Your task to perform on an android device: Empty the shopping cart on bestbuy. Search for "acer nitro" on bestbuy, select the first entry, and add it to the cart. Image 0: 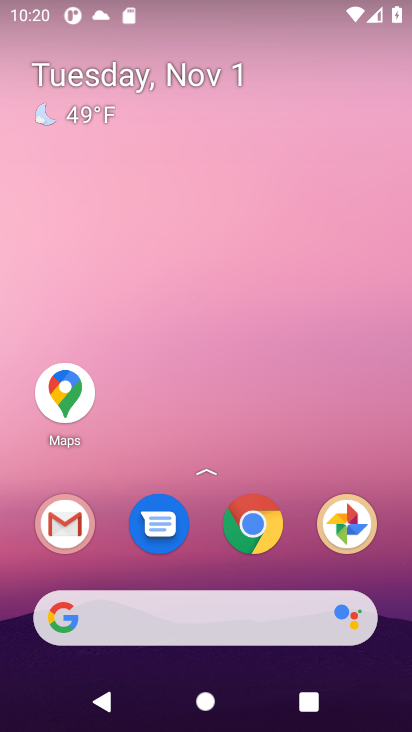
Step 0: click (92, 615)
Your task to perform on an android device: Empty the shopping cart on bestbuy. Search for "acer nitro" on bestbuy, select the first entry, and add it to the cart. Image 1: 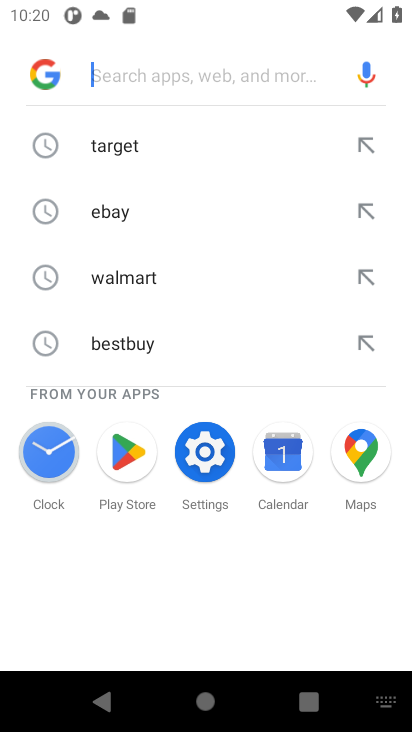
Step 1: type "bestbuy"
Your task to perform on an android device: Empty the shopping cart on bestbuy. Search for "acer nitro" on bestbuy, select the first entry, and add it to the cart. Image 2: 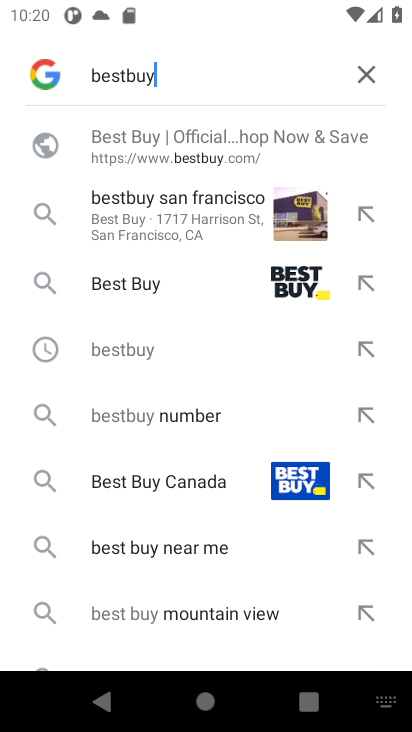
Step 2: press enter
Your task to perform on an android device: Empty the shopping cart on bestbuy. Search for "acer nitro" on bestbuy, select the first entry, and add it to the cart. Image 3: 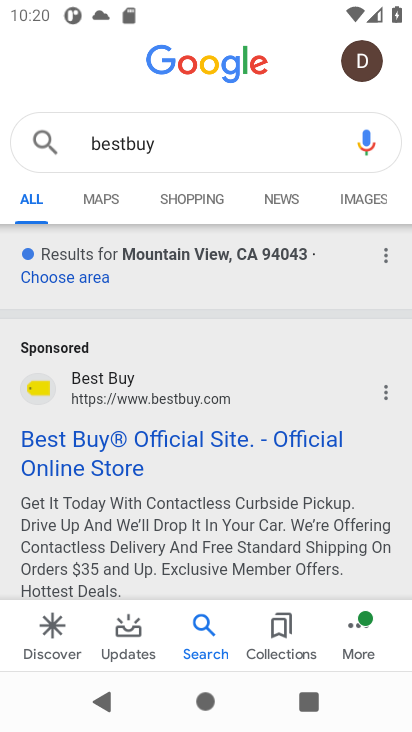
Step 3: click (92, 439)
Your task to perform on an android device: Empty the shopping cart on bestbuy. Search for "acer nitro" on bestbuy, select the first entry, and add it to the cart. Image 4: 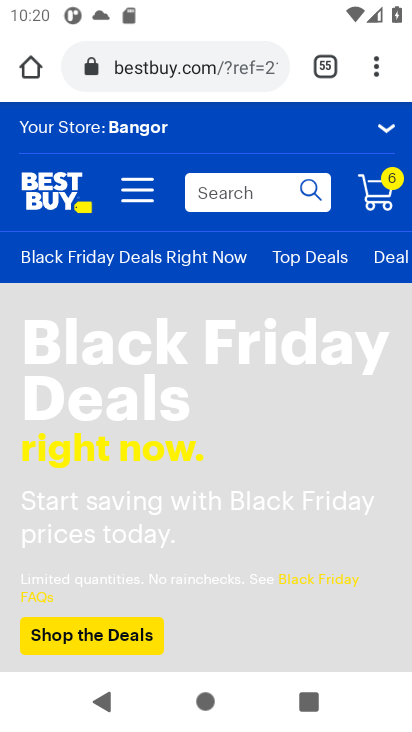
Step 4: click (383, 187)
Your task to perform on an android device: Empty the shopping cart on bestbuy. Search for "acer nitro" on bestbuy, select the first entry, and add it to the cart. Image 5: 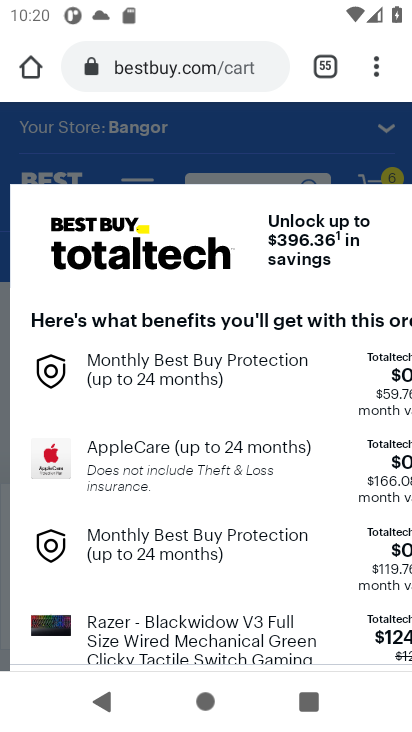
Step 5: drag from (323, 337) to (14, 301)
Your task to perform on an android device: Empty the shopping cart on bestbuy. Search for "acer nitro" on bestbuy, select the first entry, and add it to the cart. Image 6: 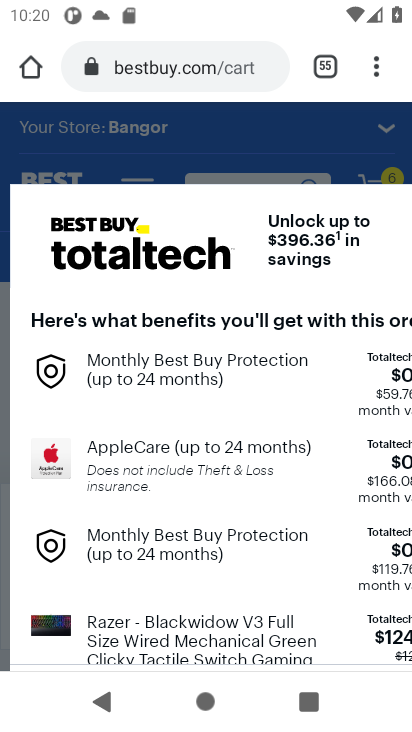
Step 6: drag from (176, 486) to (203, 134)
Your task to perform on an android device: Empty the shopping cart on bestbuy. Search for "acer nitro" on bestbuy, select the first entry, and add it to the cart. Image 7: 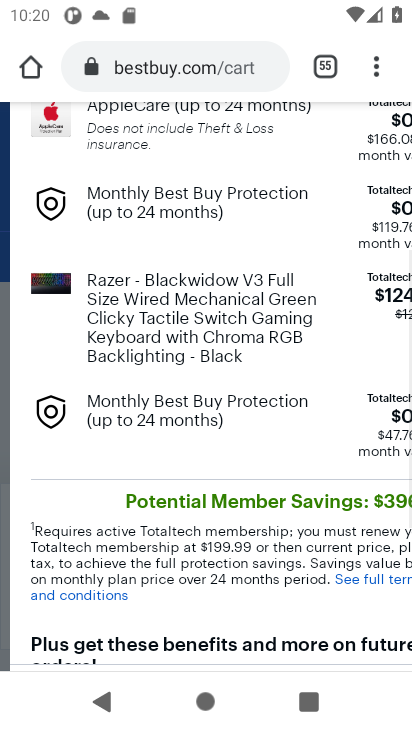
Step 7: drag from (166, 454) to (175, 125)
Your task to perform on an android device: Empty the shopping cart on bestbuy. Search for "acer nitro" on bestbuy, select the first entry, and add it to the cart. Image 8: 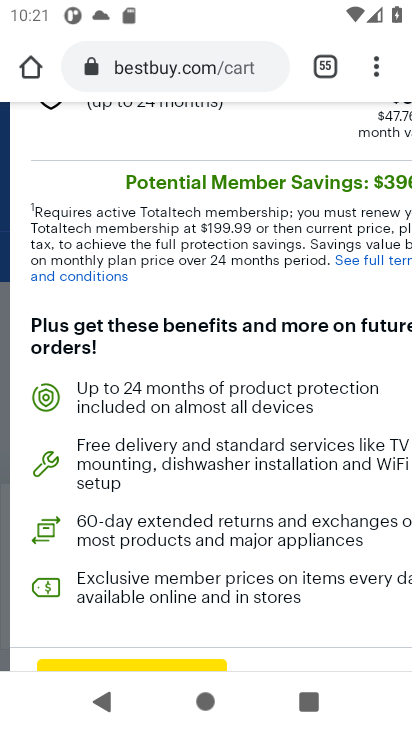
Step 8: drag from (168, 537) to (179, 188)
Your task to perform on an android device: Empty the shopping cart on bestbuy. Search for "acer nitro" on bestbuy, select the first entry, and add it to the cart. Image 9: 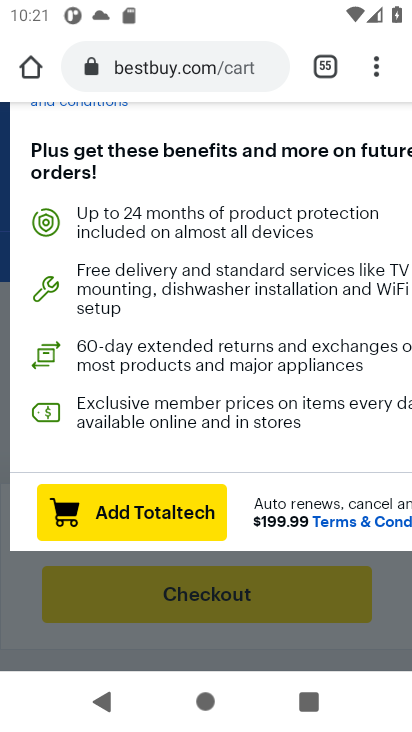
Step 9: click (16, 624)
Your task to perform on an android device: Empty the shopping cart on bestbuy. Search for "acer nitro" on bestbuy, select the first entry, and add it to the cart. Image 10: 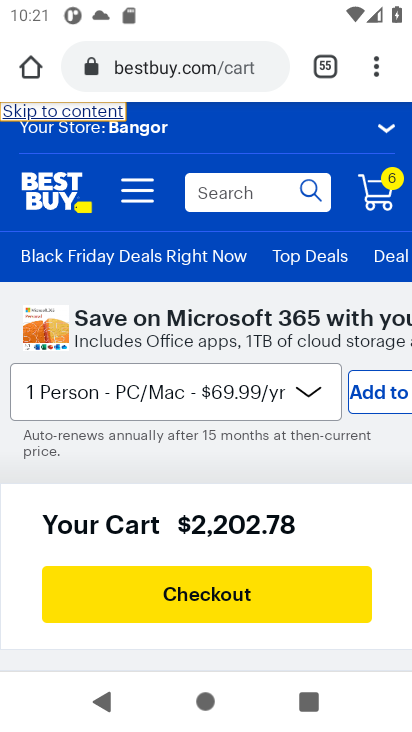
Step 10: drag from (103, 585) to (135, 221)
Your task to perform on an android device: Empty the shopping cart on bestbuy. Search for "acer nitro" on bestbuy, select the first entry, and add it to the cart. Image 11: 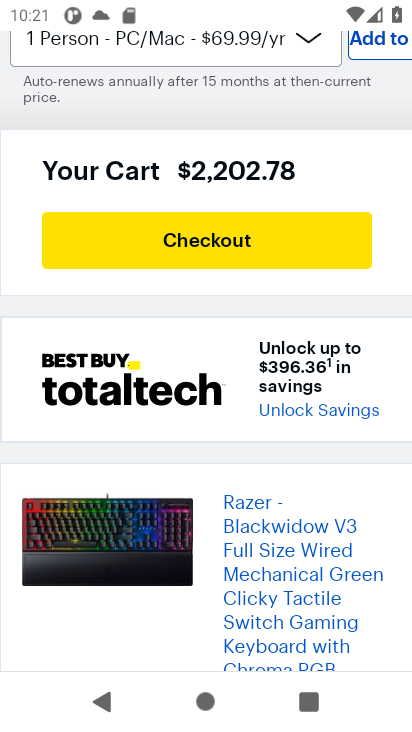
Step 11: drag from (179, 594) to (171, 217)
Your task to perform on an android device: Empty the shopping cart on bestbuy. Search for "acer nitro" on bestbuy, select the first entry, and add it to the cart. Image 12: 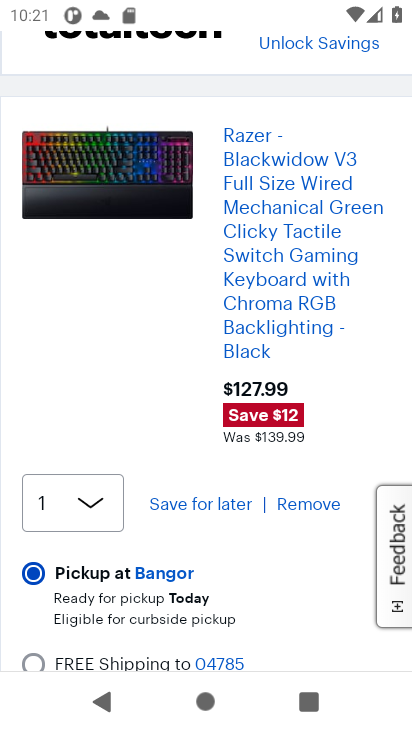
Step 12: drag from (203, 593) to (208, 339)
Your task to perform on an android device: Empty the shopping cart on bestbuy. Search for "acer nitro" on bestbuy, select the first entry, and add it to the cart. Image 13: 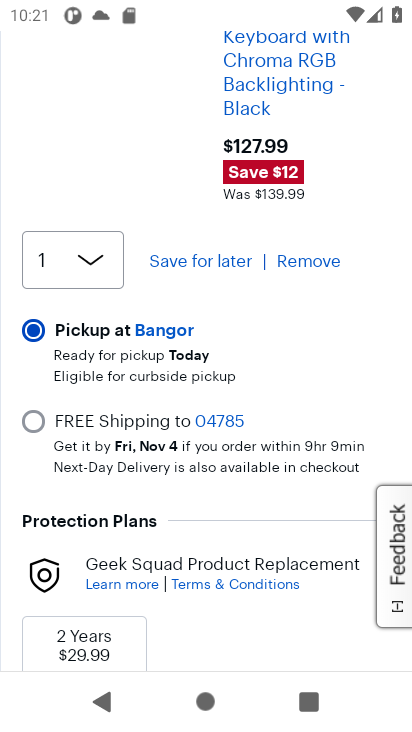
Step 13: click (315, 262)
Your task to perform on an android device: Empty the shopping cart on bestbuy. Search for "acer nitro" on bestbuy, select the first entry, and add it to the cart. Image 14: 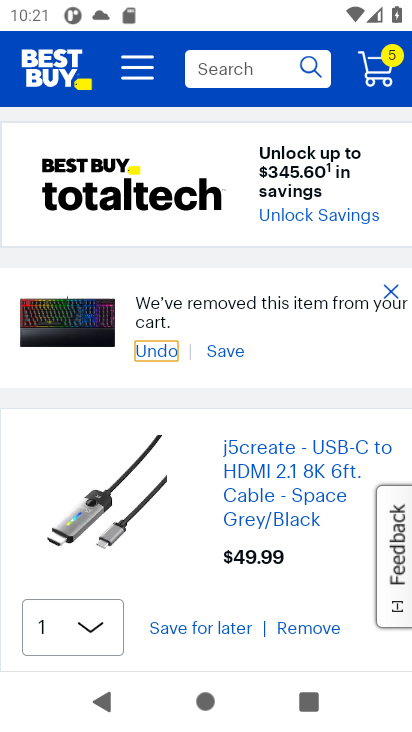
Step 14: click (311, 623)
Your task to perform on an android device: Empty the shopping cart on bestbuy. Search for "acer nitro" on bestbuy, select the first entry, and add it to the cart. Image 15: 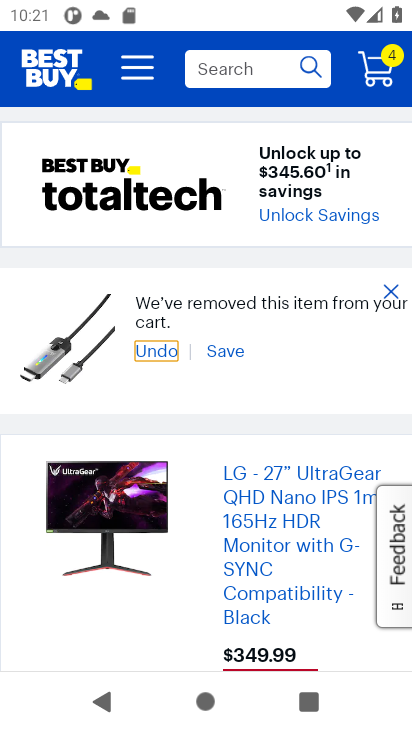
Step 15: drag from (308, 619) to (292, 288)
Your task to perform on an android device: Empty the shopping cart on bestbuy. Search for "acer nitro" on bestbuy, select the first entry, and add it to the cart. Image 16: 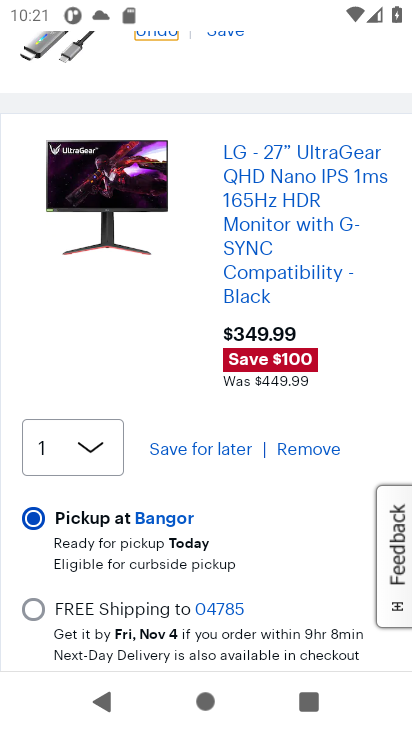
Step 16: click (297, 451)
Your task to perform on an android device: Empty the shopping cart on bestbuy. Search for "acer nitro" on bestbuy, select the first entry, and add it to the cart. Image 17: 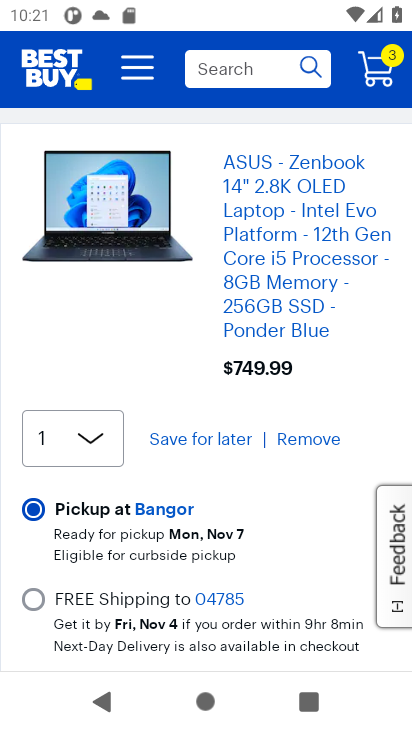
Step 17: click (305, 443)
Your task to perform on an android device: Empty the shopping cart on bestbuy. Search for "acer nitro" on bestbuy, select the first entry, and add it to the cart. Image 18: 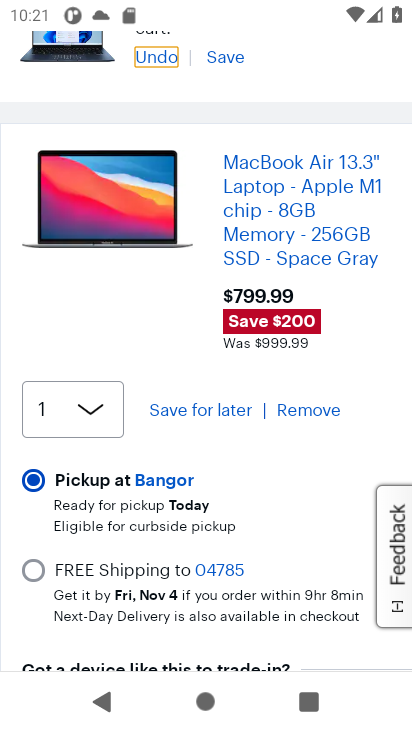
Step 18: click (307, 404)
Your task to perform on an android device: Empty the shopping cart on bestbuy. Search for "acer nitro" on bestbuy, select the first entry, and add it to the cart. Image 19: 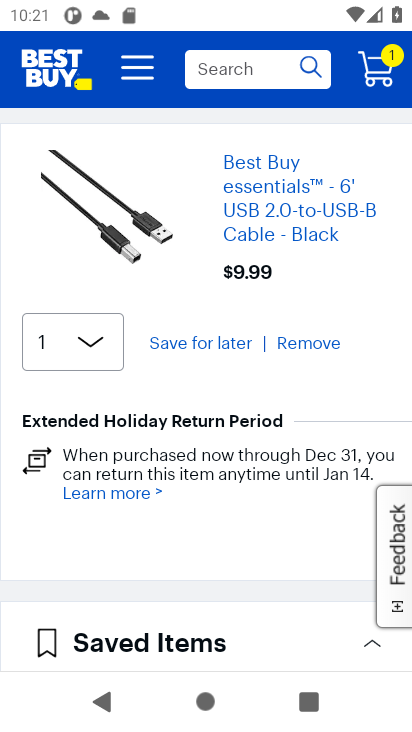
Step 19: click (301, 340)
Your task to perform on an android device: Empty the shopping cart on bestbuy. Search for "acer nitro" on bestbuy, select the first entry, and add it to the cart. Image 20: 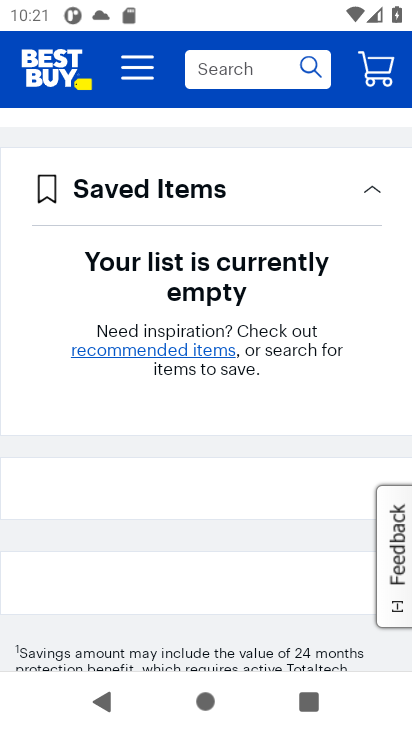
Step 20: click (218, 64)
Your task to perform on an android device: Empty the shopping cart on bestbuy. Search for "acer nitro" on bestbuy, select the first entry, and add it to the cart. Image 21: 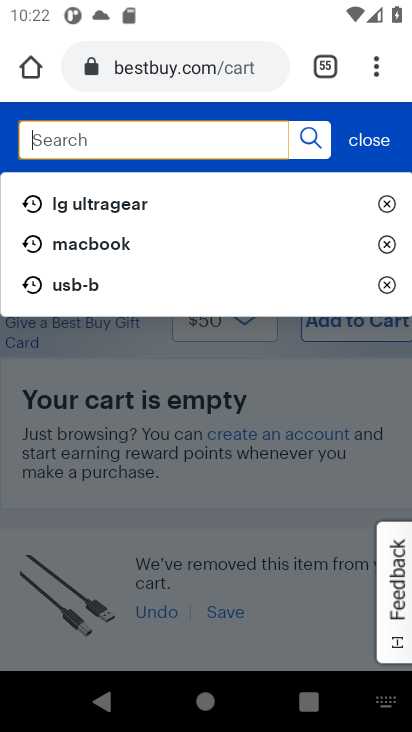
Step 21: type "acer nitro"
Your task to perform on an android device: Empty the shopping cart on bestbuy. Search for "acer nitro" on bestbuy, select the first entry, and add it to the cart. Image 22: 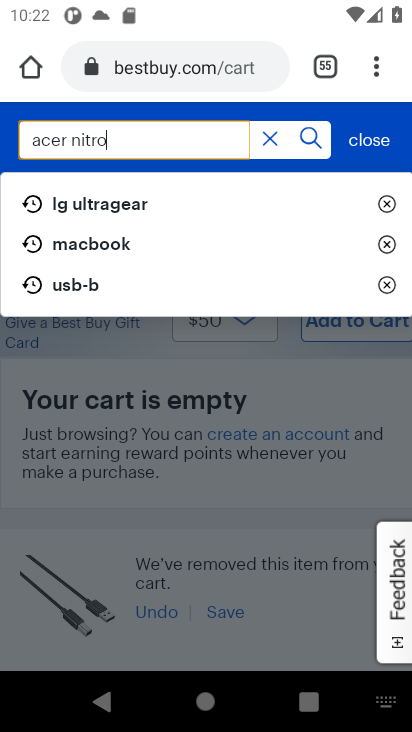
Step 22: press enter
Your task to perform on an android device: Empty the shopping cart on bestbuy. Search for "acer nitro" on bestbuy, select the first entry, and add it to the cart. Image 23: 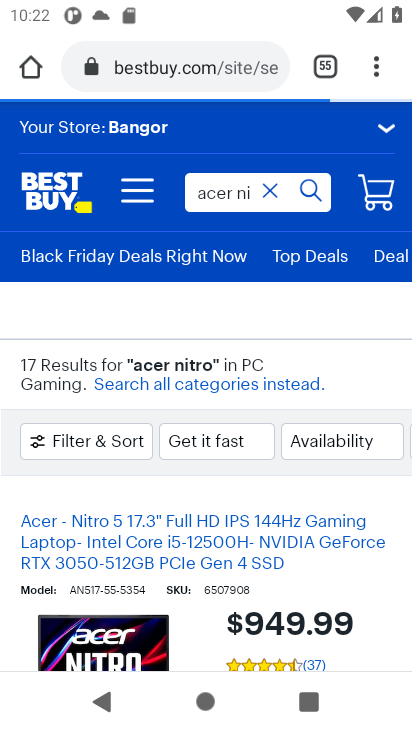
Step 23: drag from (244, 580) to (244, 345)
Your task to perform on an android device: Empty the shopping cart on bestbuy. Search for "acer nitro" on bestbuy, select the first entry, and add it to the cart. Image 24: 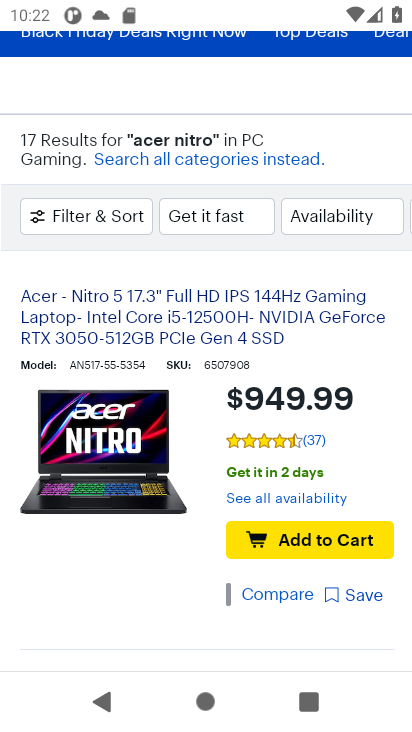
Step 24: drag from (193, 514) to (191, 370)
Your task to perform on an android device: Empty the shopping cart on bestbuy. Search for "acer nitro" on bestbuy, select the first entry, and add it to the cart. Image 25: 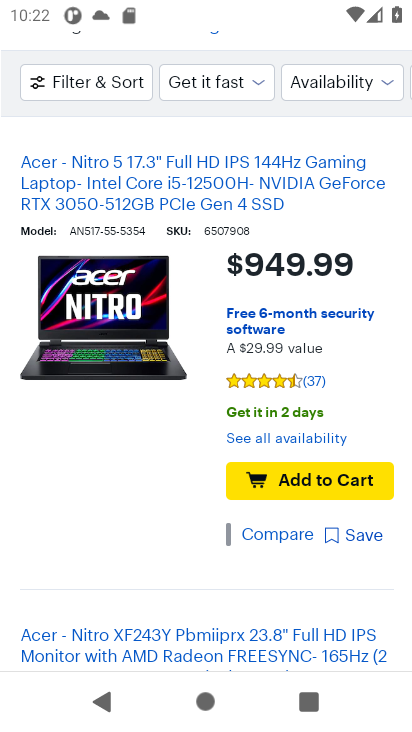
Step 25: click (288, 475)
Your task to perform on an android device: Empty the shopping cart on bestbuy. Search for "acer nitro" on bestbuy, select the first entry, and add it to the cart. Image 26: 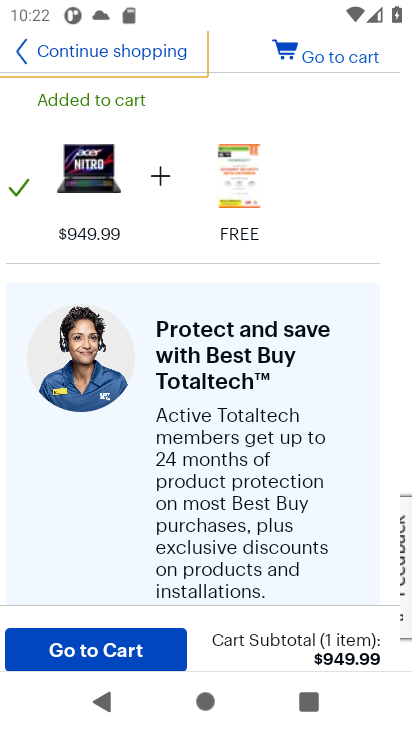
Step 26: task complete